Your task to perform on an android device: Open Maps and search for coffee Image 0: 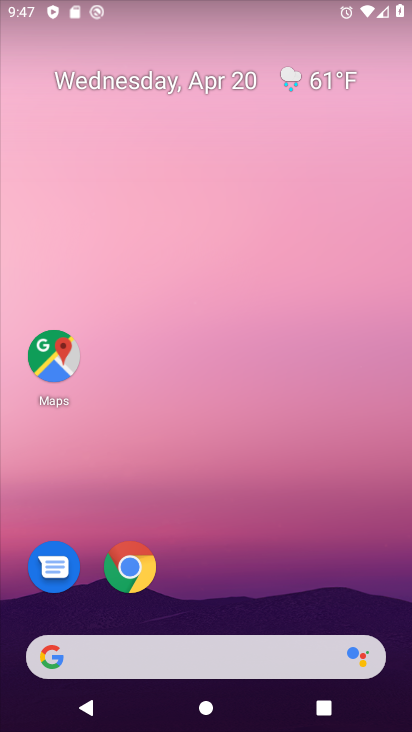
Step 0: click (58, 360)
Your task to perform on an android device: Open Maps and search for coffee Image 1: 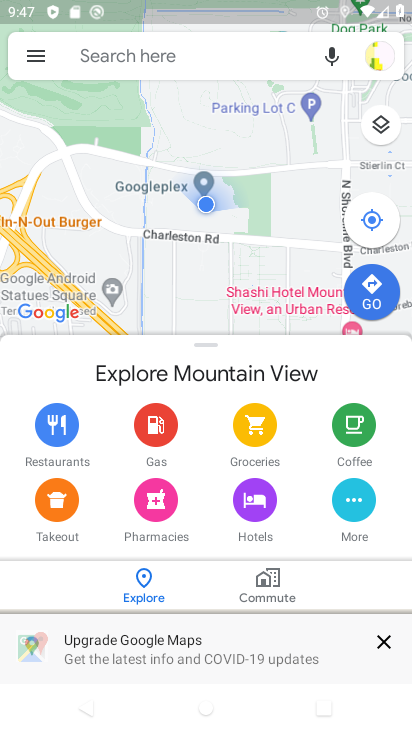
Step 1: click (254, 47)
Your task to perform on an android device: Open Maps and search for coffee Image 2: 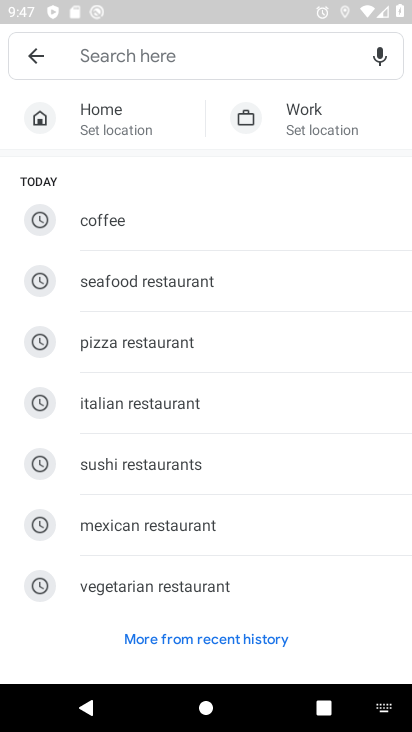
Step 2: type "coffee"
Your task to perform on an android device: Open Maps and search for coffee Image 3: 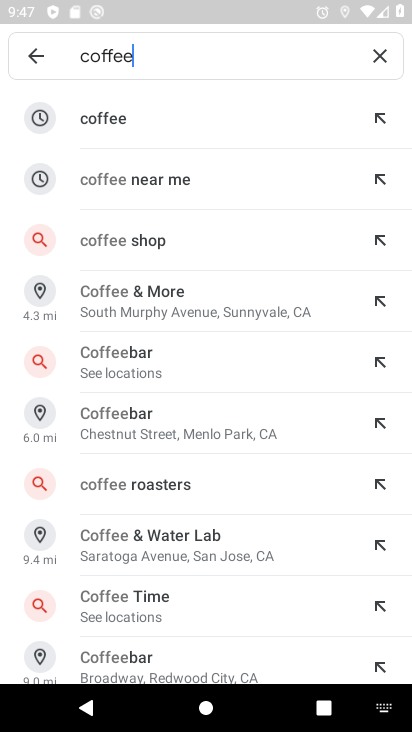
Step 3: click (162, 124)
Your task to perform on an android device: Open Maps and search for coffee Image 4: 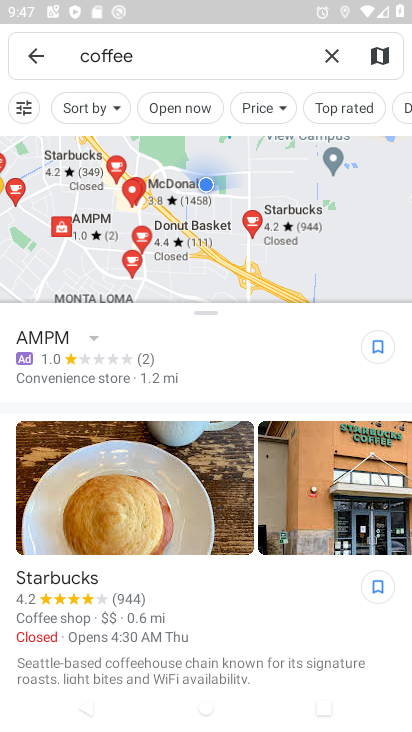
Step 4: task complete